Your task to perform on an android device: Open sound settings Image 0: 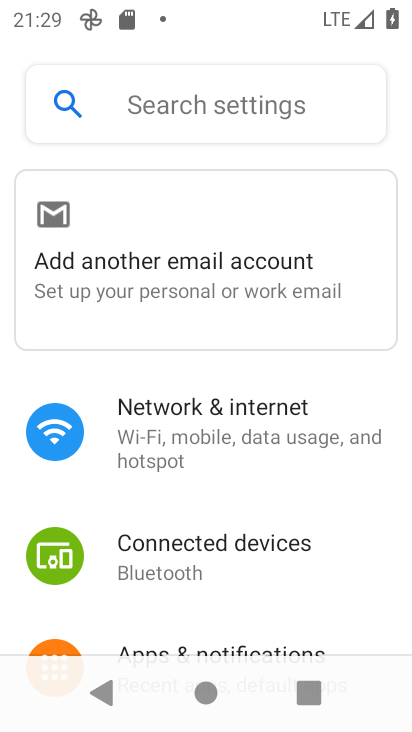
Step 0: drag from (218, 564) to (374, 29)
Your task to perform on an android device: Open sound settings Image 1: 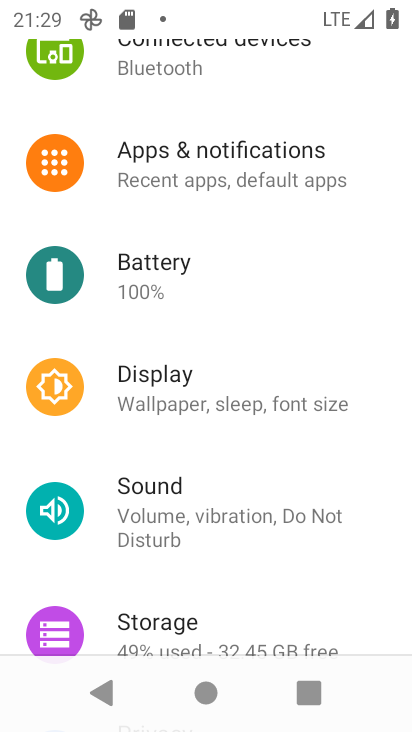
Step 1: click (231, 480)
Your task to perform on an android device: Open sound settings Image 2: 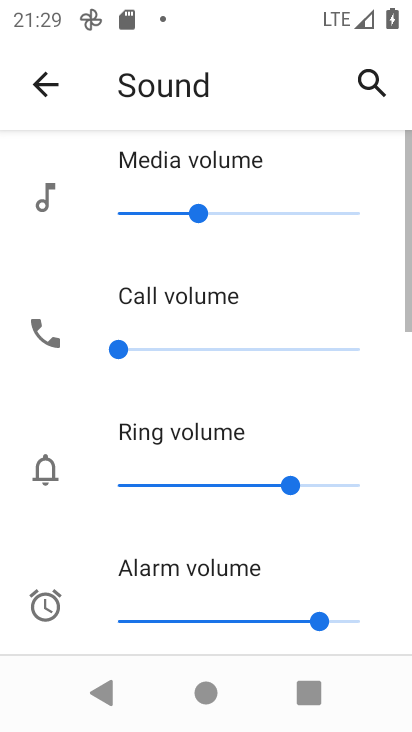
Step 2: task complete